Your task to perform on an android device: turn on wifi Image 0: 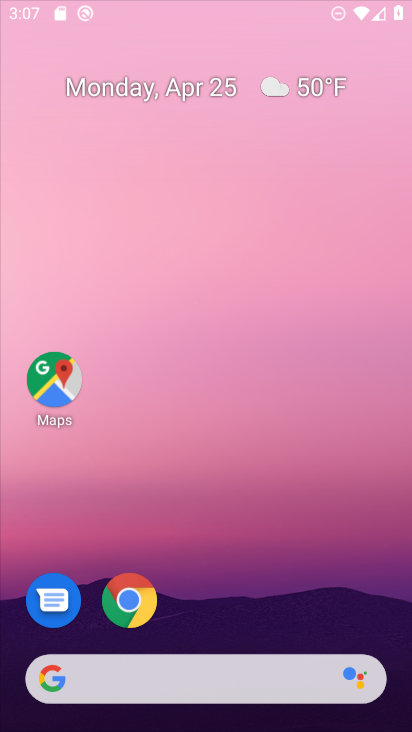
Step 0: click (213, 30)
Your task to perform on an android device: turn on wifi Image 1: 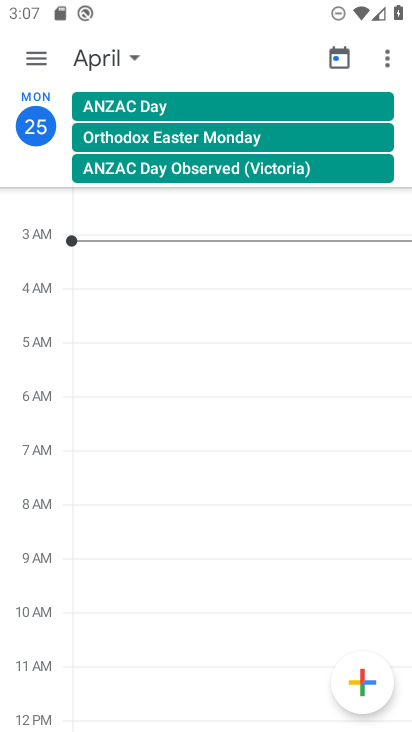
Step 1: press home button
Your task to perform on an android device: turn on wifi Image 2: 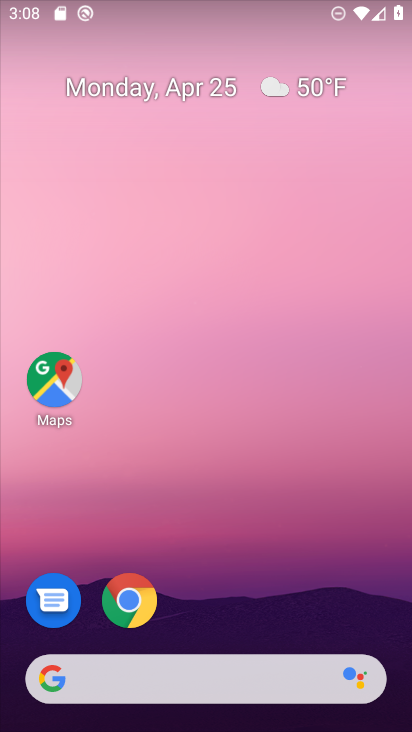
Step 2: drag from (204, 651) to (135, 8)
Your task to perform on an android device: turn on wifi Image 3: 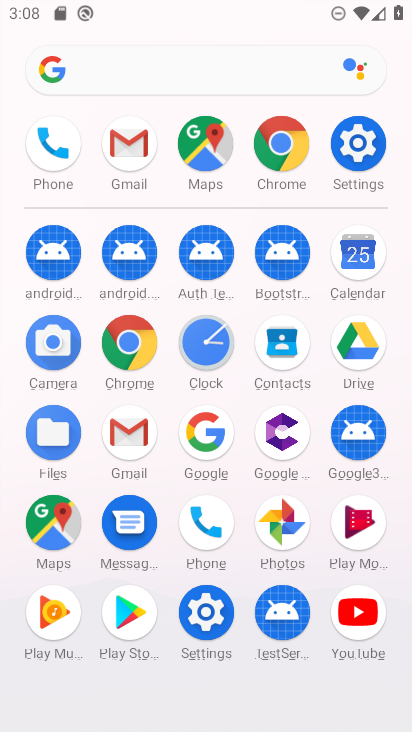
Step 3: click (212, 625)
Your task to perform on an android device: turn on wifi Image 4: 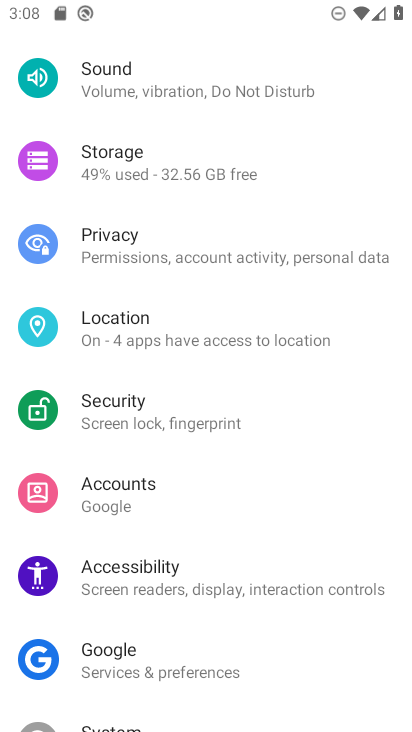
Step 4: drag from (259, 209) to (258, 675)
Your task to perform on an android device: turn on wifi Image 5: 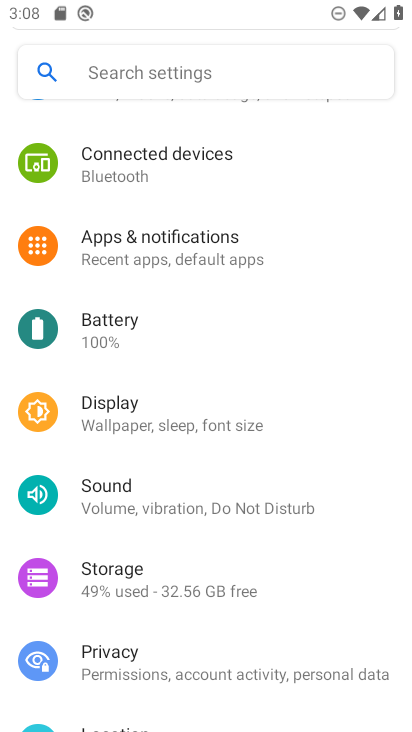
Step 5: drag from (148, 170) to (161, 462)
Your task to perform on an android device: turn on wifi Image 6: 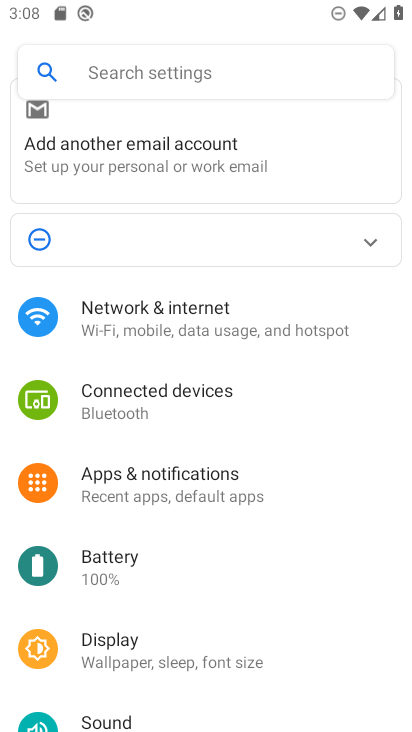
Step 6: click (139, 307)
Your task to perform on an android device: turn on wifi Image 7: 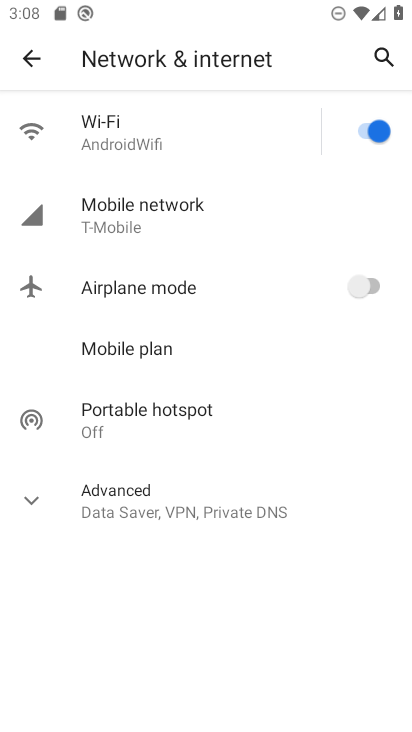
Step 7: click (173, 129)
Your task to perform on an android device: turn on wifi Image 8: 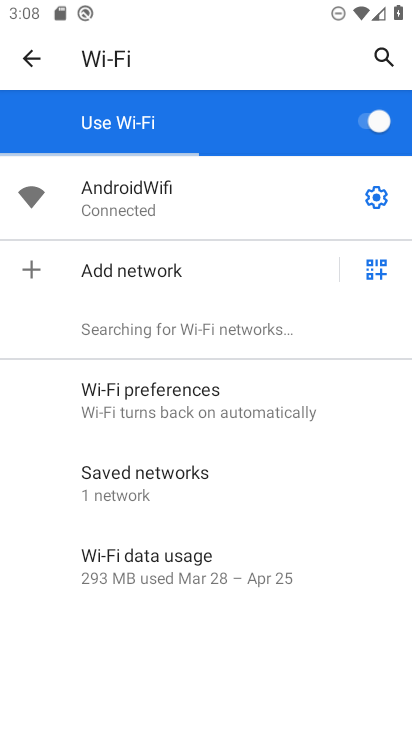
Step 8: task complete